Your task to perform on an android device: check out phone information Image 0: 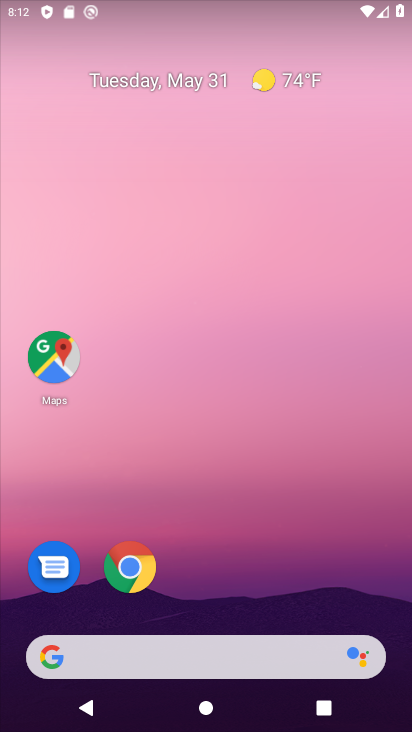
Step 0: drag from (229, 708) to (117, 220)
Your task to perform on an android device: check out phone information Image 1: 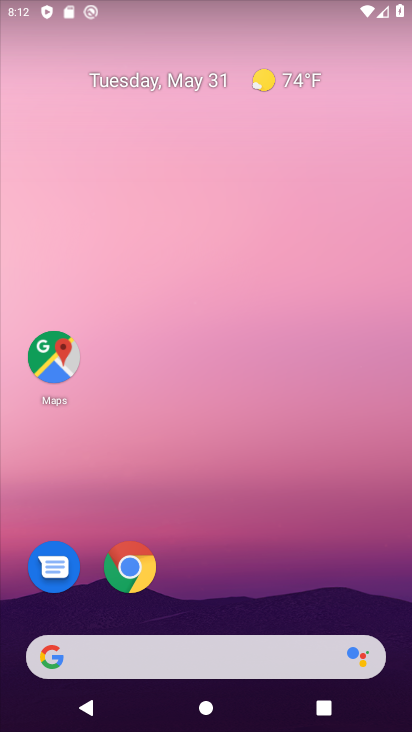
Step 1: drag from (267, 682) to (202, 57)
Your task to perform on an android device: check out phone information Image 2: 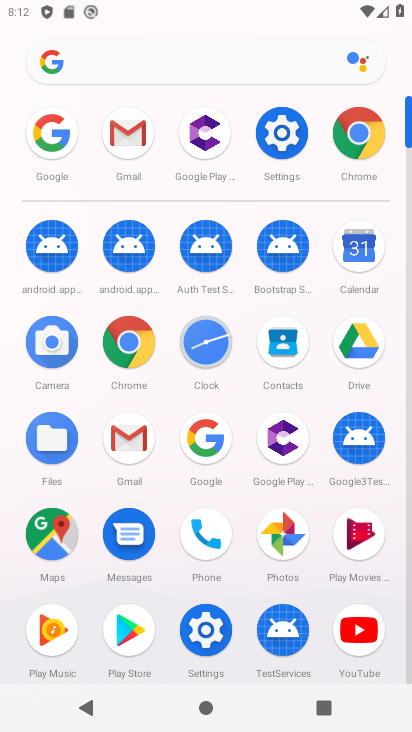
Step 2: click (207, 626)
Your task to perform on an android device: check out phone information Image 3: 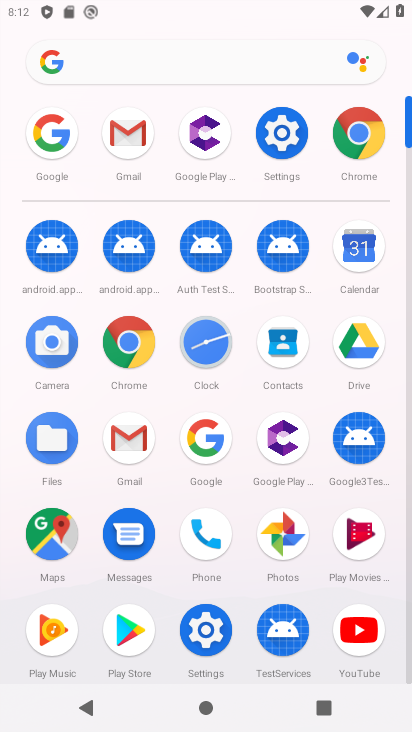
Step 3: click (210, 626)
Your task to perform on an android device: check out phone information Image 4: 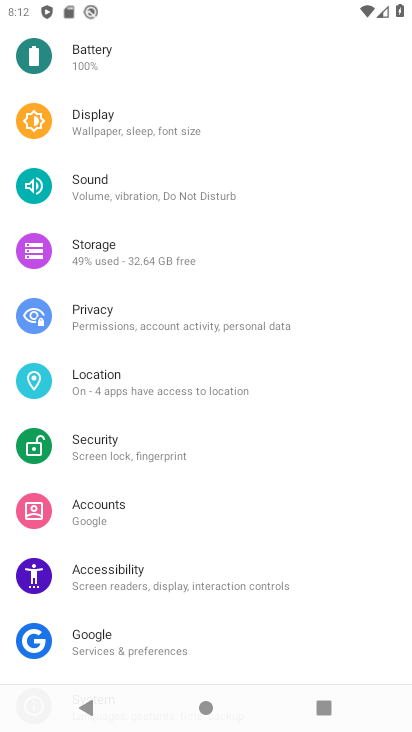
Step 4: drag from (110, 520) to (131, 38)
Your task to perform on an android device: check out phone information Image 5: 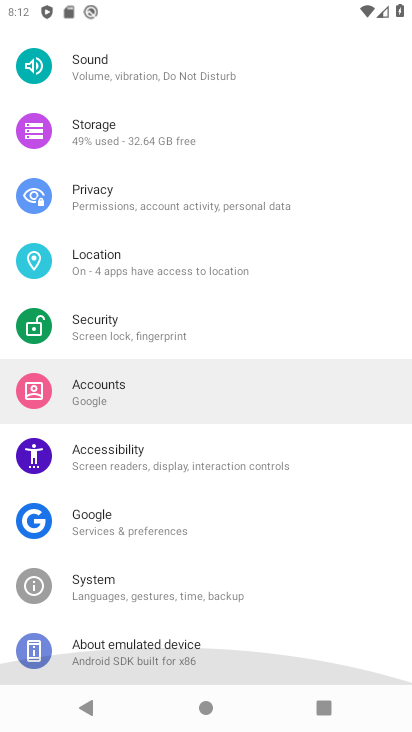
Step 5: drag from (230, 519) to (209, 77)
Your task to perform on an android device: check out phone information Image 6: 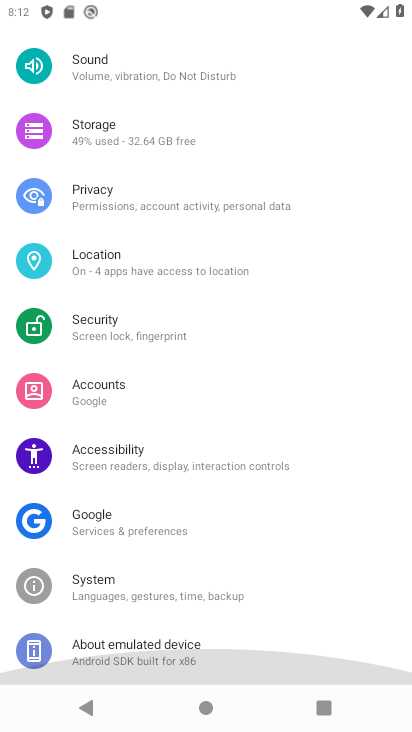
Step 6: drag from (163, 400) to (163, 98)
Your task to perform on an android device: check out phone information Image 7: 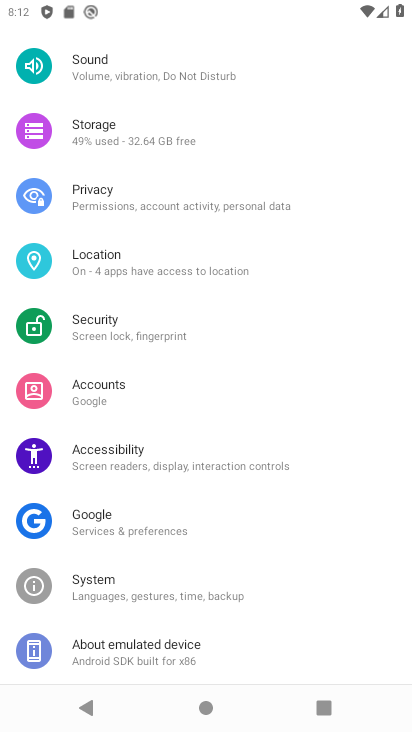
Step 7: click (105, 647)
Your task to perform on an android device: check out phone information Image 8: 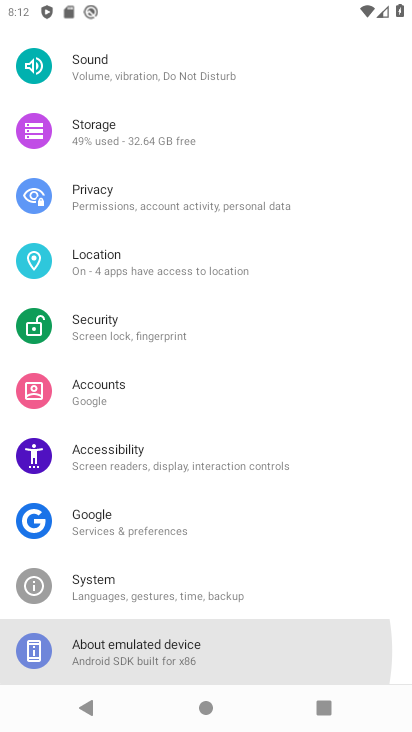
Step 8: click (105, 647)
Your task to perform on an android device: check out phone information Image 9: 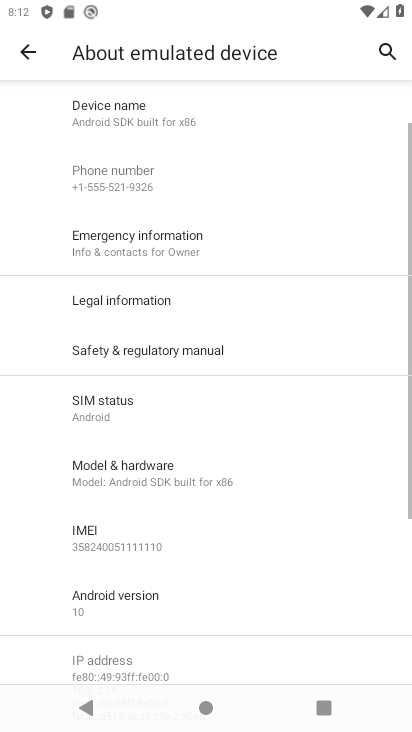
Step 9: task complete